Your task to perform on an android device: open app "Facebook Messenger" (install if not already installed) and enter user name: "divorce@inbox.com" and password: "caviar" Image 0: 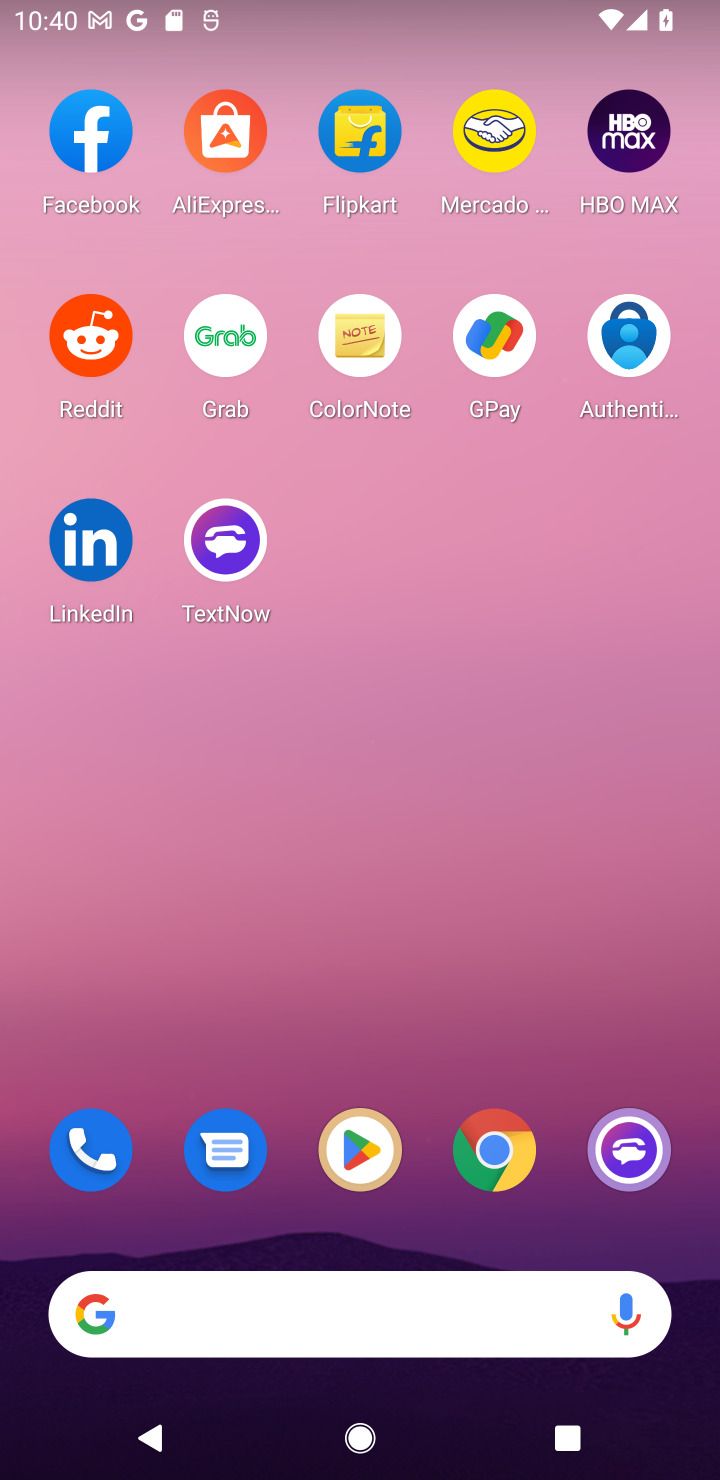
Step 0: click (345, 1111)
Your task to perform on an android device: open app "Facebook Messenger" (install if not already installed) and enter user name: "divorce@inbox.com" and password: "caviar" Image 1: 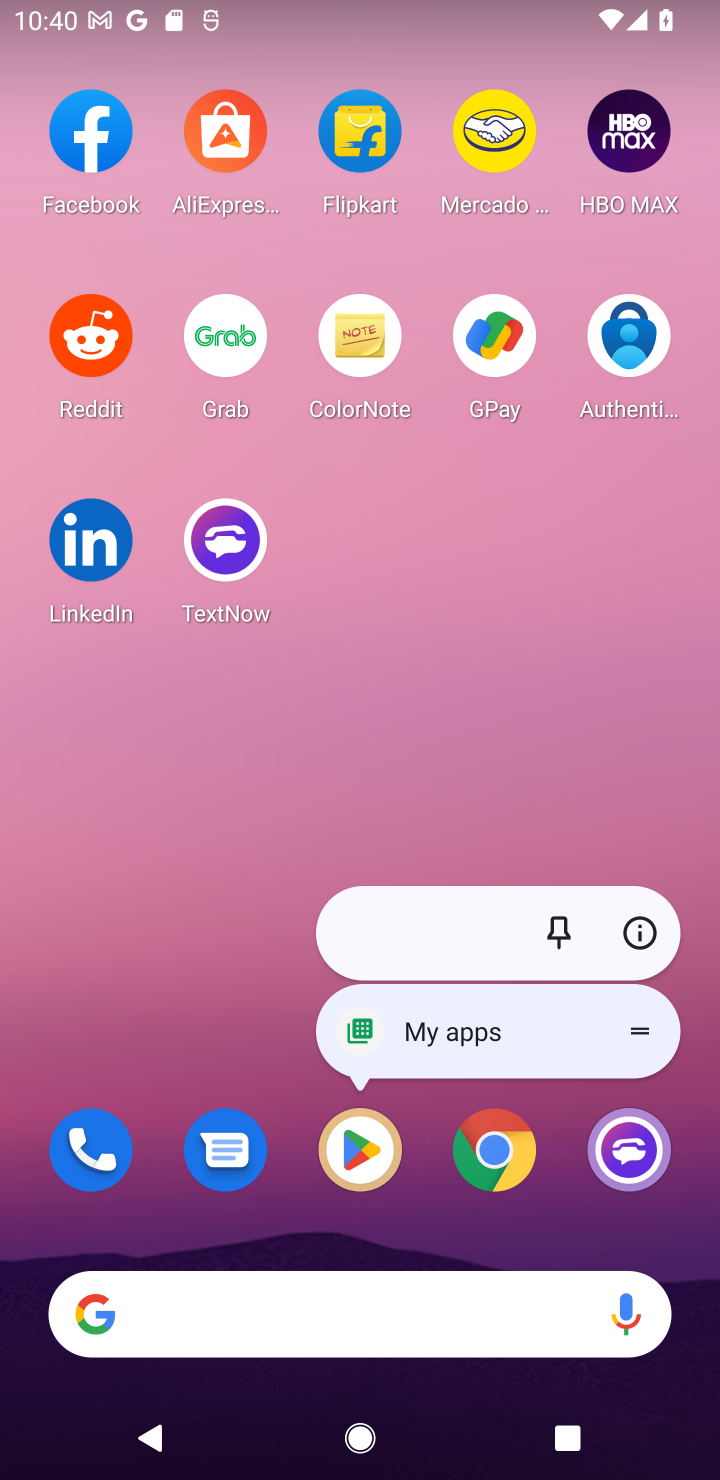
Step 1: click (365, 1137)
Your task to perform on an android device: open app "Facebook Messenger" (install if not already installed) and enter user name: "divorce@inbox.com" and password: "caviar" Image 2: 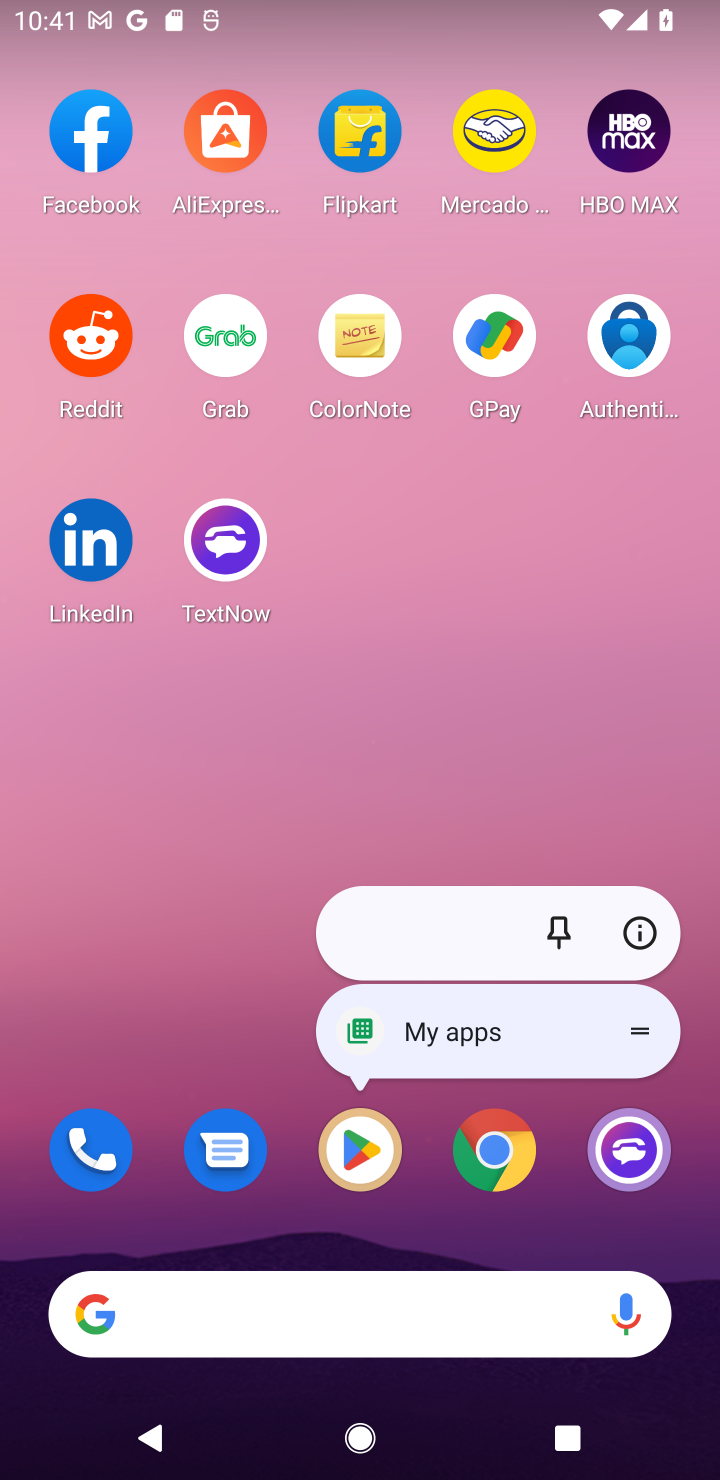
Step 2: click (365, 1137)
Your task to perform on an android device: open app "Facebook Messenger" (install if not already installed) and enter user name: "divorce@inbox.com" and password: "caviar" Image 3: 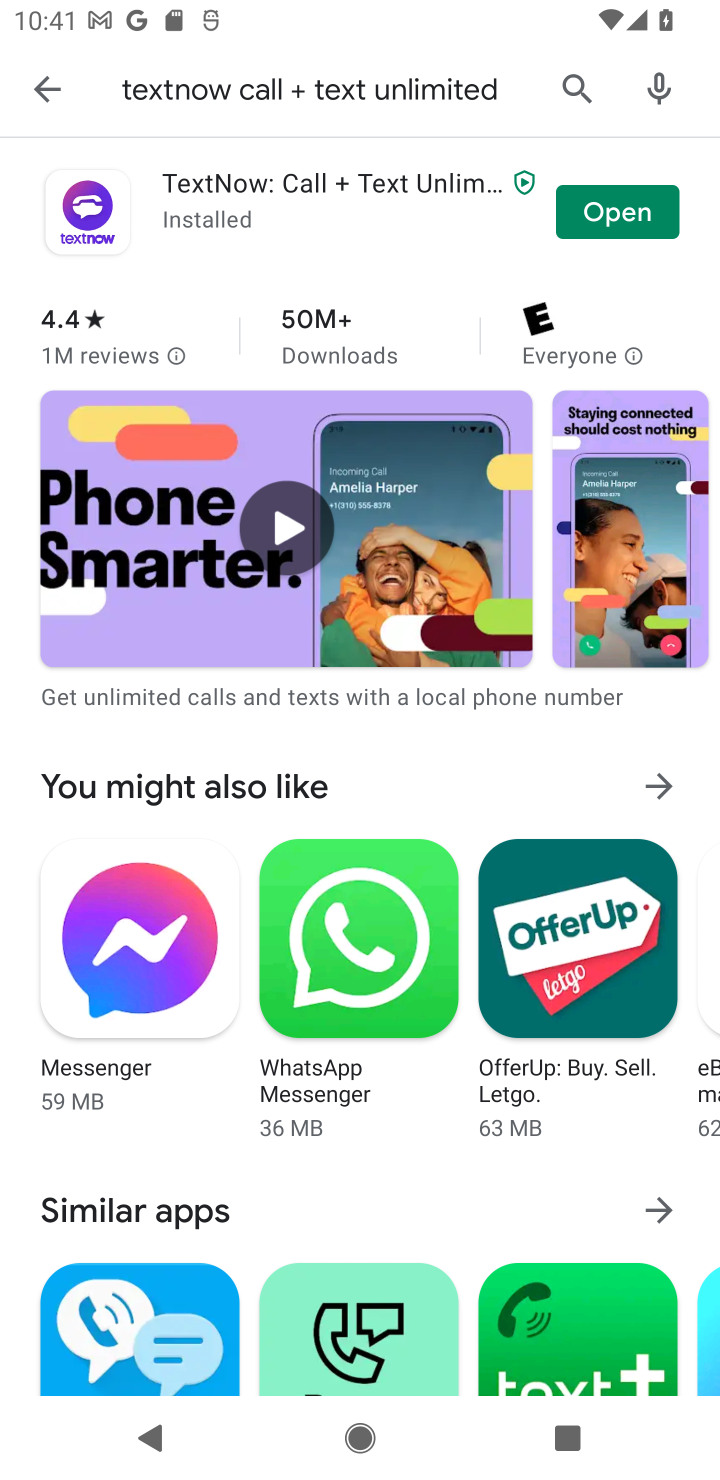
Step 3: click (563, 90)
Your task to perform on an android device: open app "Facebook Messenger" (install if not already installed) and enter user name: "divorce@inbox.com" and password: "caviar" Image 4: 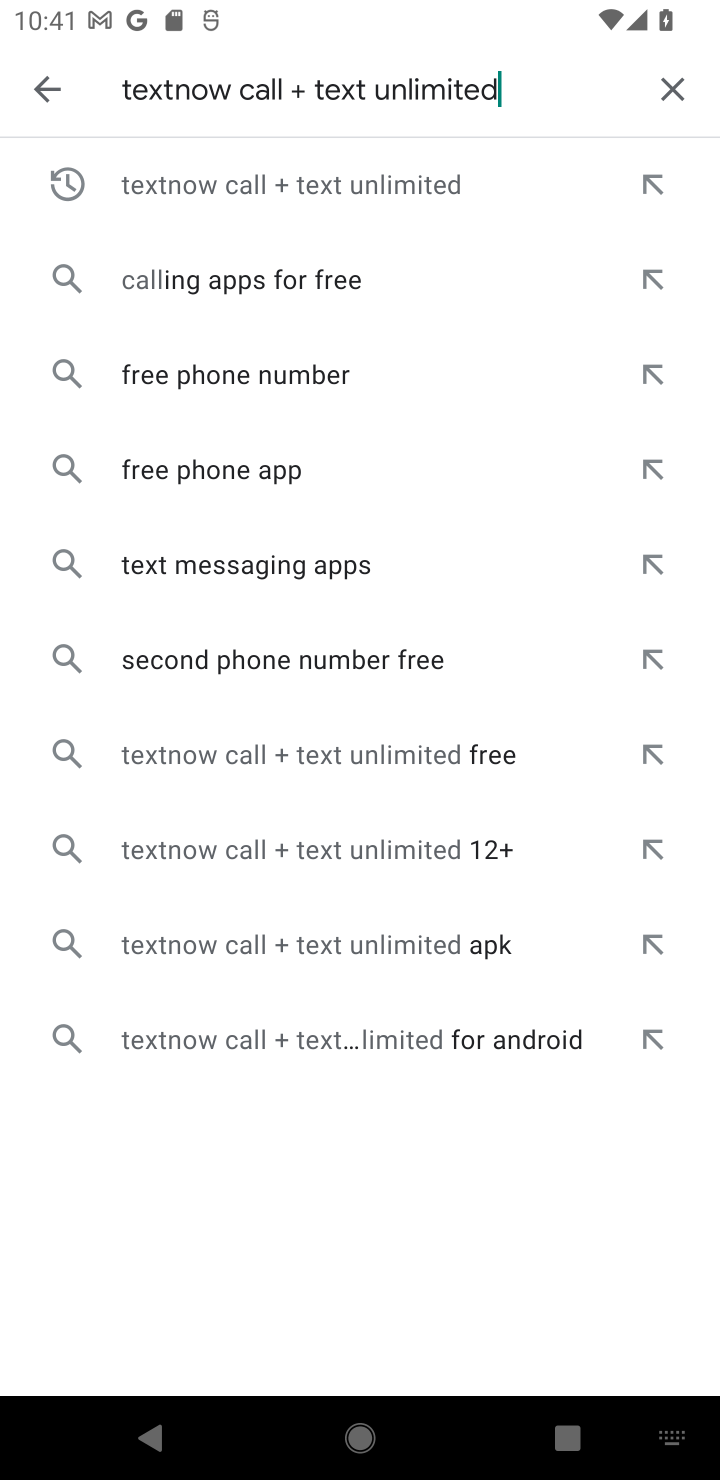
Step 4: click (663, 76)
Your task to perform on an android device: open app "Facebook Messenger" (install if not already installed) and enter user name: "divorce@inbox.com" and password: "caviar" Image 5: 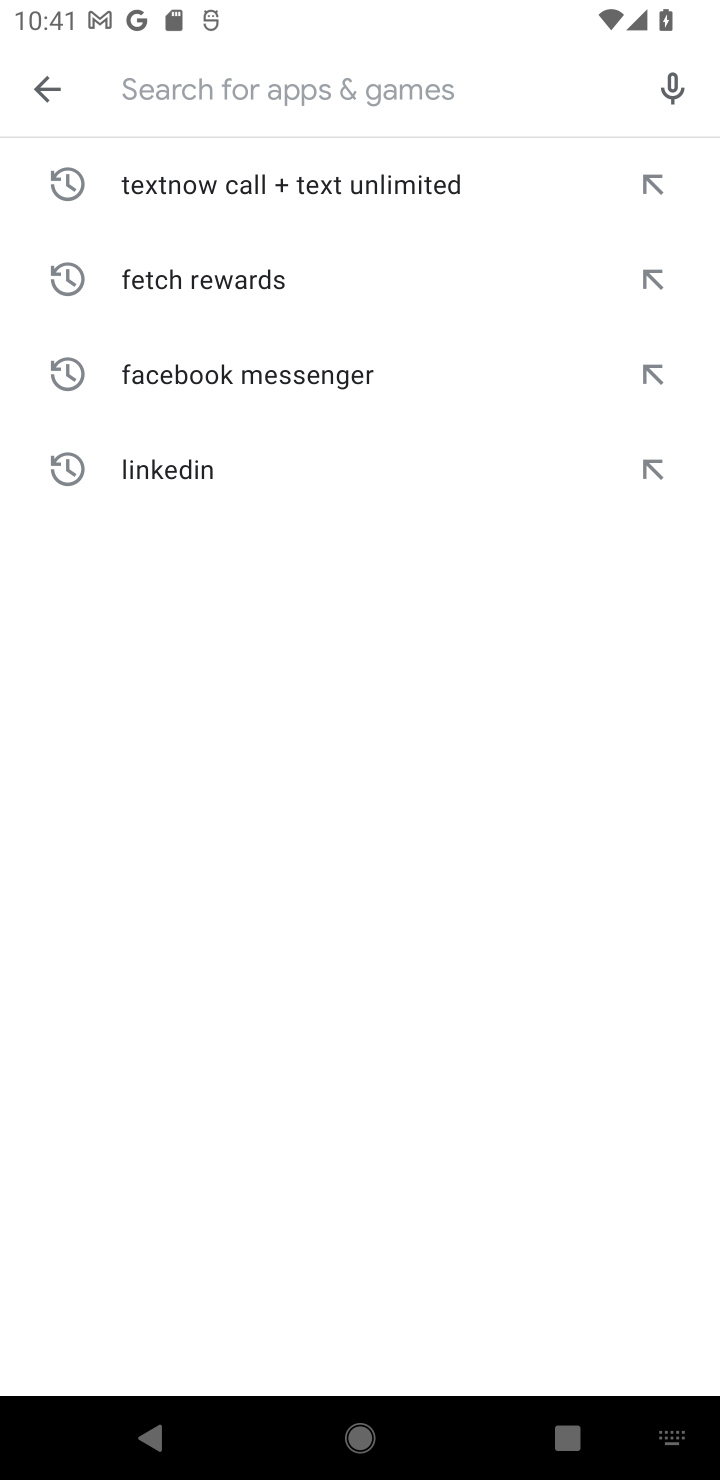
Step 5: click (260, 374)
Your task to perform on an android device: open app "Facebook Messenger" (install if not already installed) and enter user name: "divorce@inbox.com" and password: "caviar" Image 6: 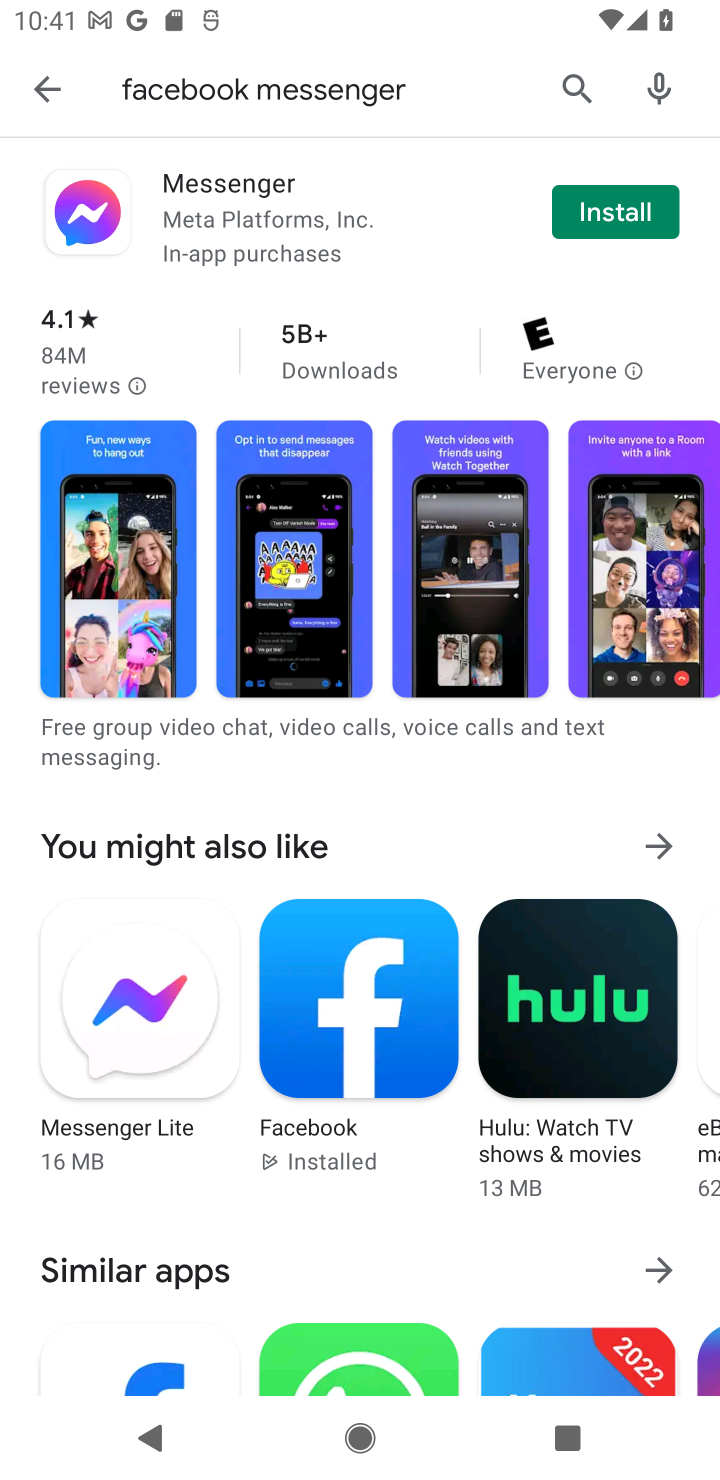
Step 6: click (584, 201)
Your task to perform on an android device: open app "Facebook Messenger" (install if not already installed) and enter user name: "divorce@inbox.com" and password: "caviar" Image 7: 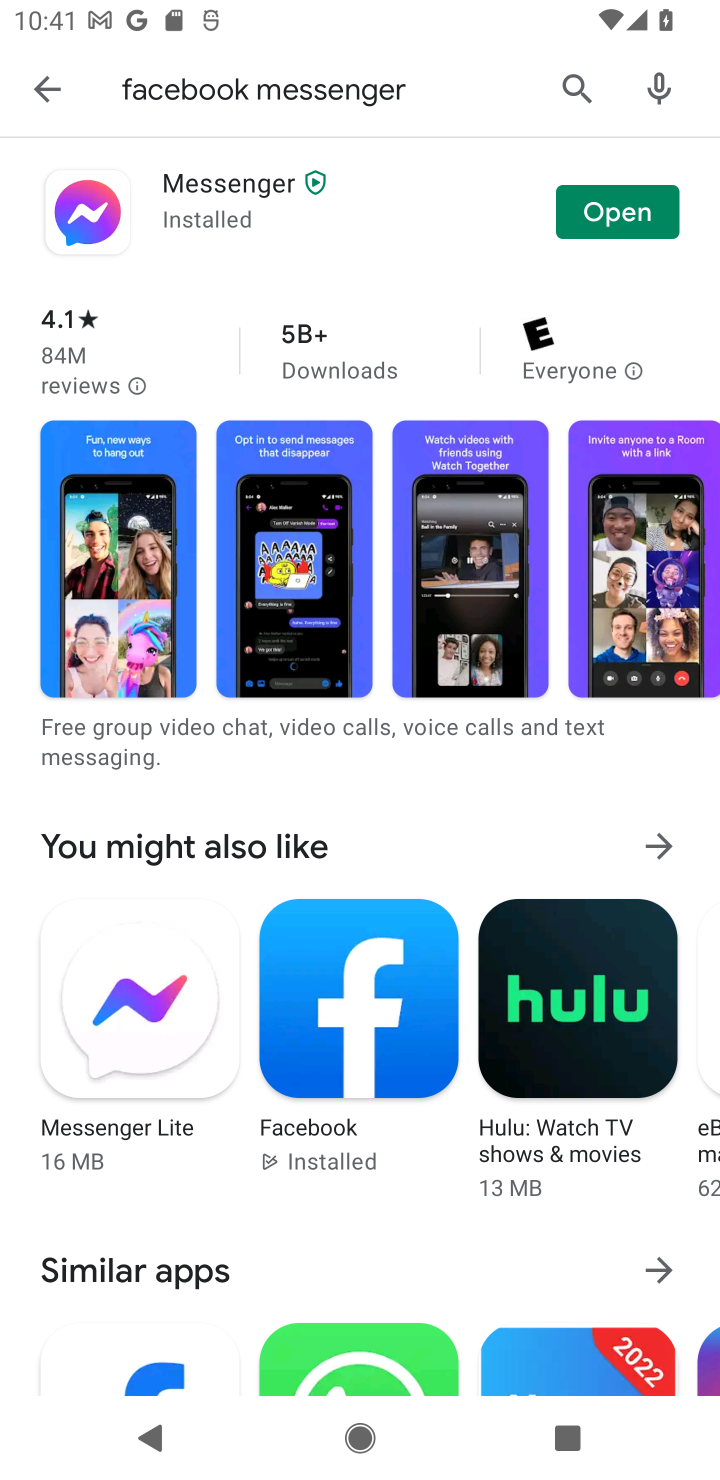
Step 7: click (584, 209)
Your task to perform on an android device: open app "Facebook Messenger" (install if not already installed) and enter user name: "divorce@inbox.com" and password: "caviar" Image 8: 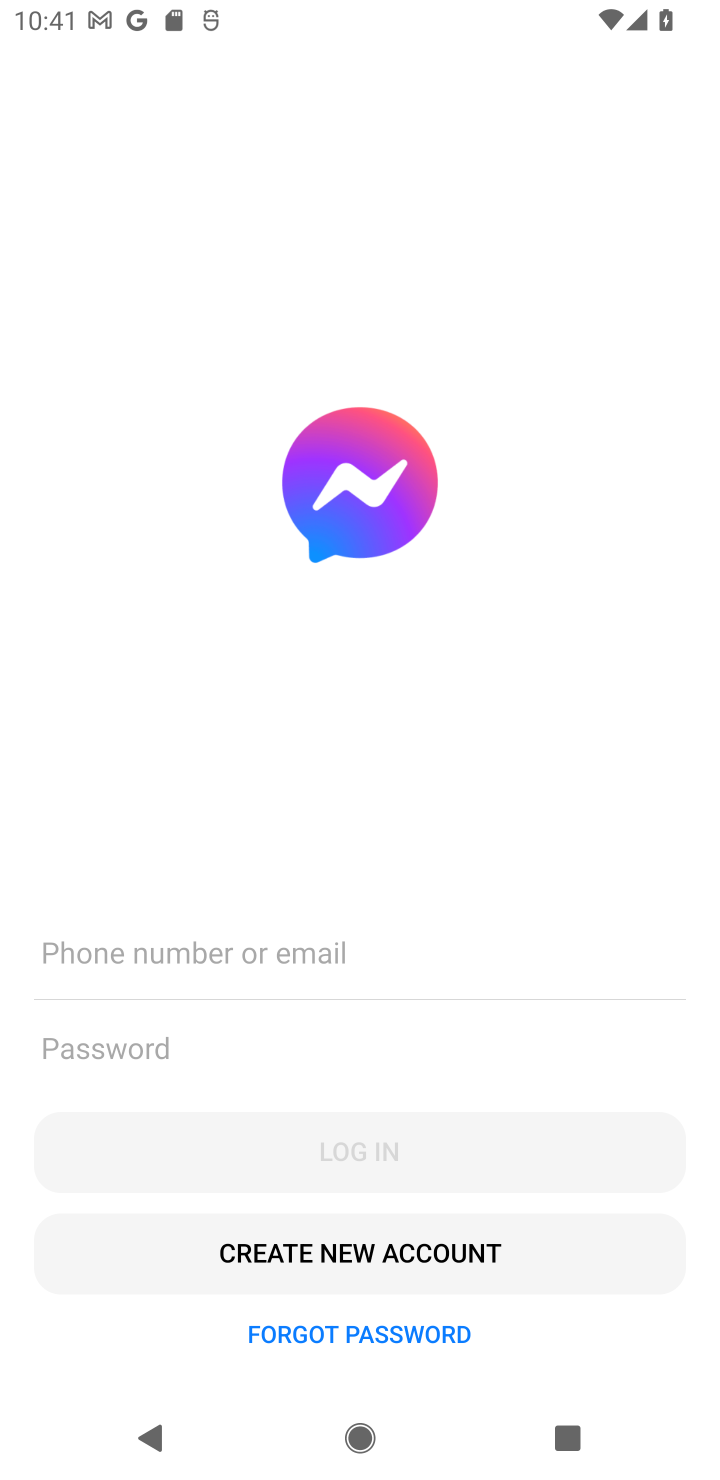
Step 8: task complete